Your task to perform on an android device: check data usage Image 0: 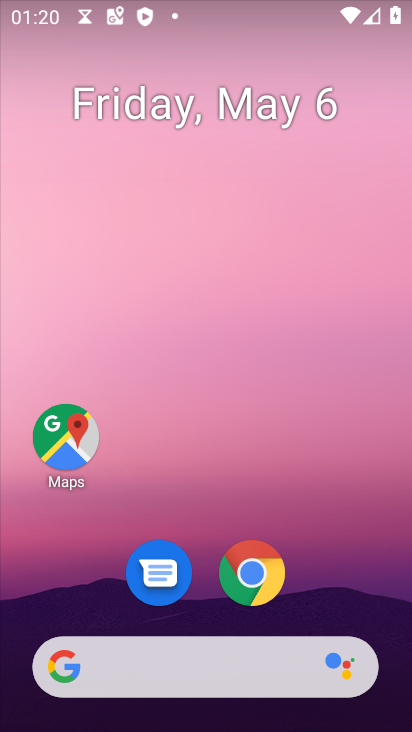
Step 0: drag from (340, 598) to (344, 210)
Your task to perform on an android device: check data usage Image 1: 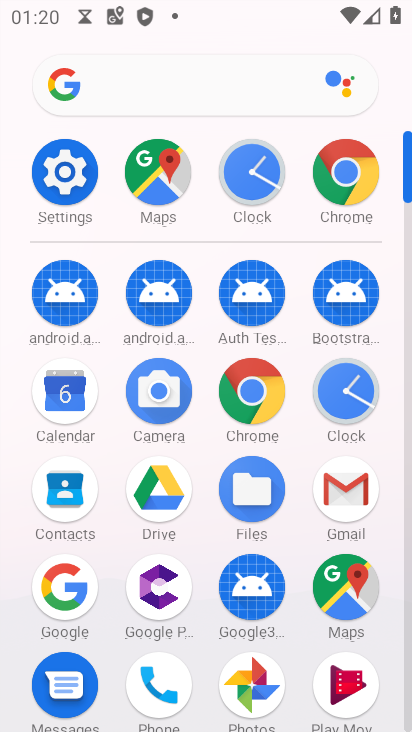
Step 1: click (64, 170)
Your task to perform on an android device: check data usage Image 2: 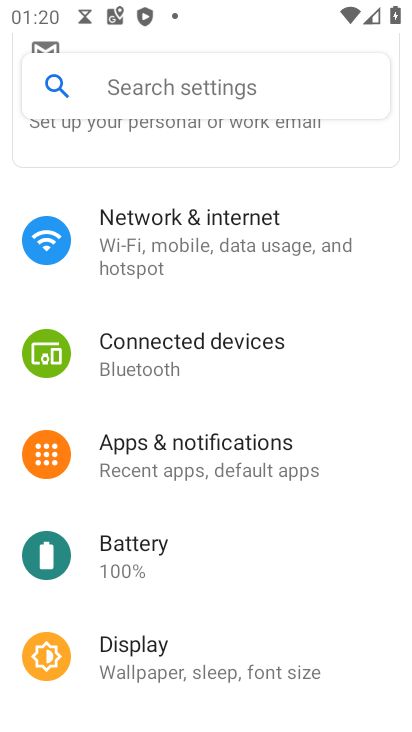
Step 2: click (223, 242)
Your task to perform on an android device: check data usage Image 3: 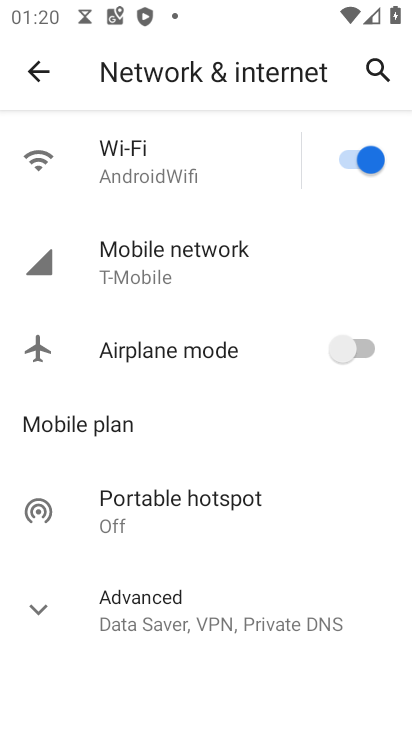
Step 3: click (167, 160)
Your task to perform on an android device: check data usage Image 4: 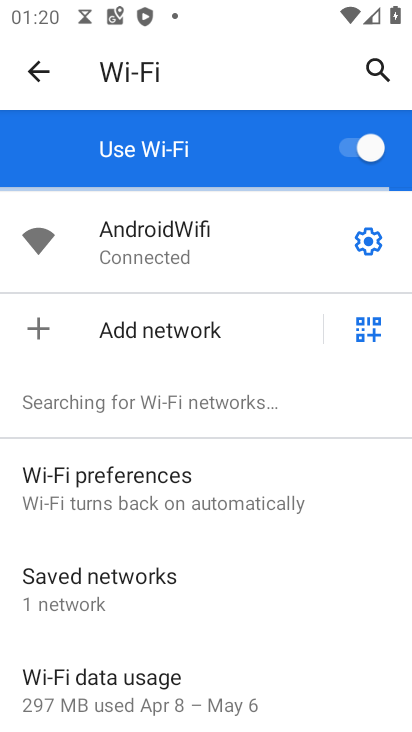
Step 4: press home button
Your task to perform on an android device: check data usage Image 5: 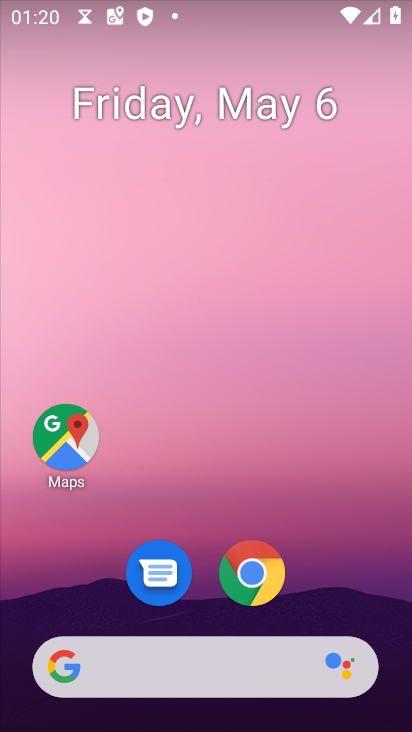
Step 5: drag from (346, 484) to (367, 302)
Your task to perform on an android device: check data usage Image 6: 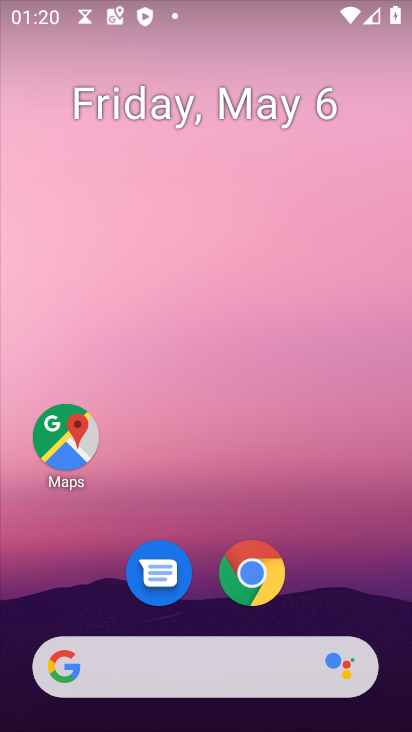
Step 6: drag from (302, 614) to (364, 320)
Your task to perform on an android device: check data usage Image 7: 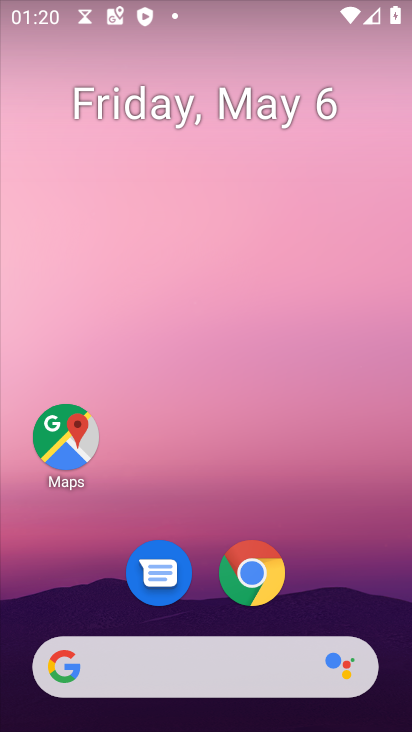
Step 7: drag from (273, 580) to (287, 175)
Your task to perform on an android device: check data usage Image 8: 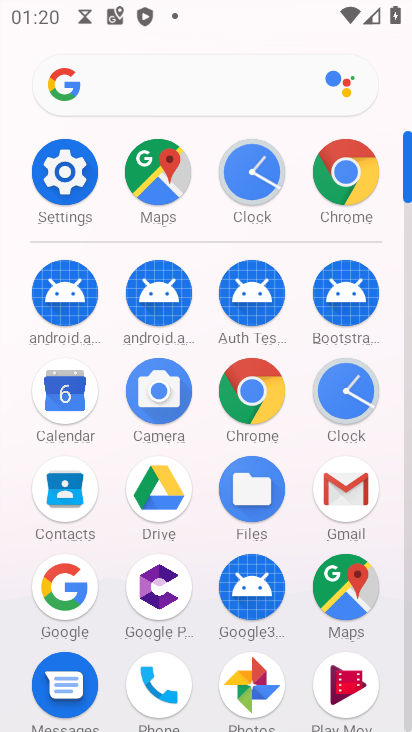
Step 8: click (60, 169)
Your task to perform on an android device: check data usage Image 9: 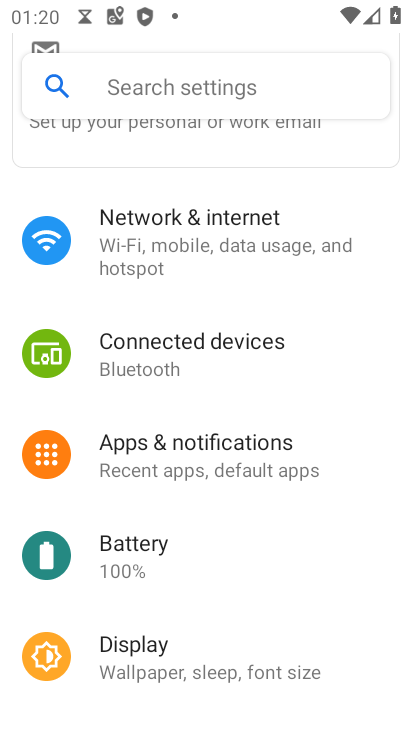
Step 9: click (221, 237)
Your task to perform on an android device: check data usage Image 10: 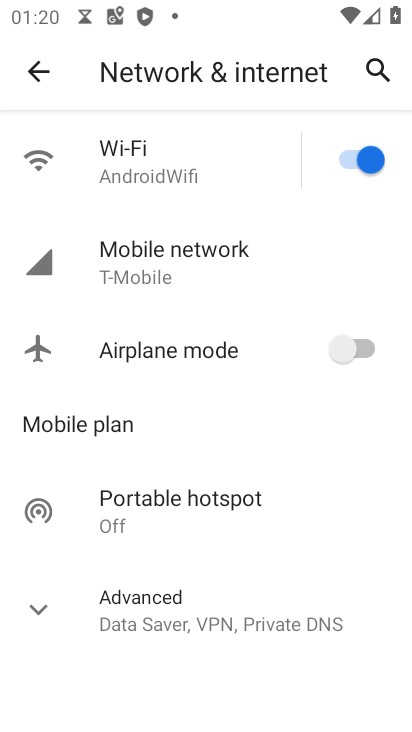
Step 10: click (210, 257)
Your task to perform on an android device: check data usage Image 11: 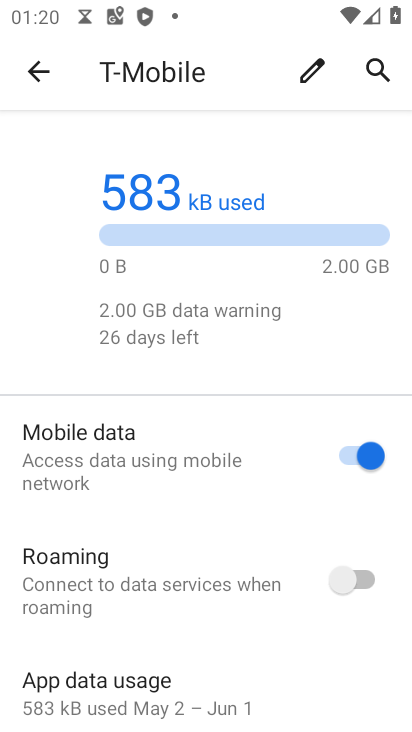
Step 11: click (165, 687)
Your task to perform on an android device: check data usage Image 12: 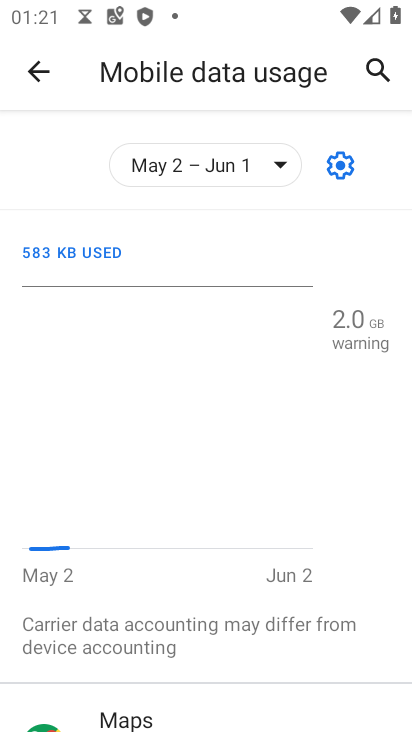
Step 12: task complete